Your task to perform on an android device: turn off picture-in-picture Image 0: 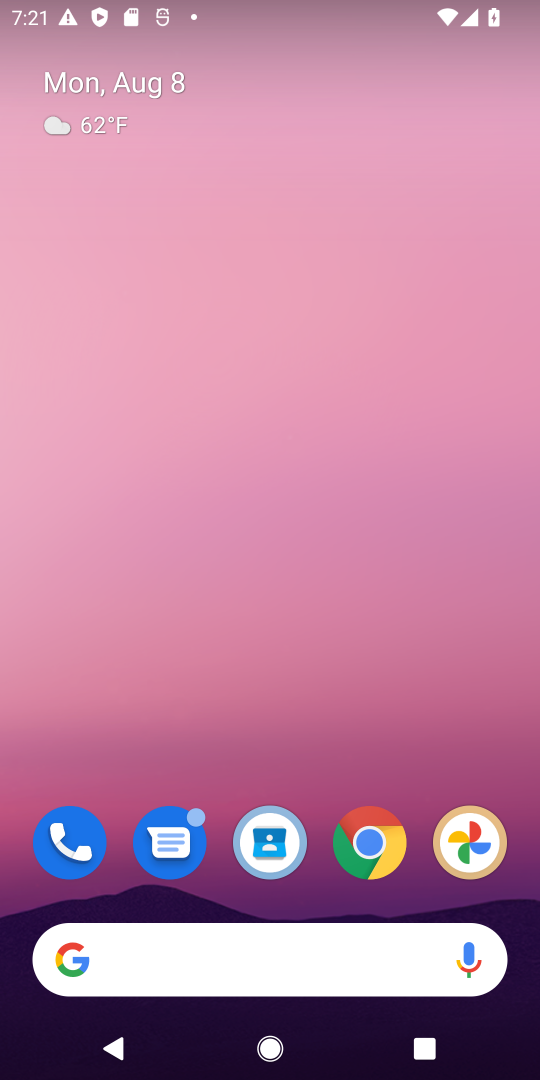
Step 0: click (366, 828)
Your task to perform on an android device: turn off picture-in-picture Image 1: 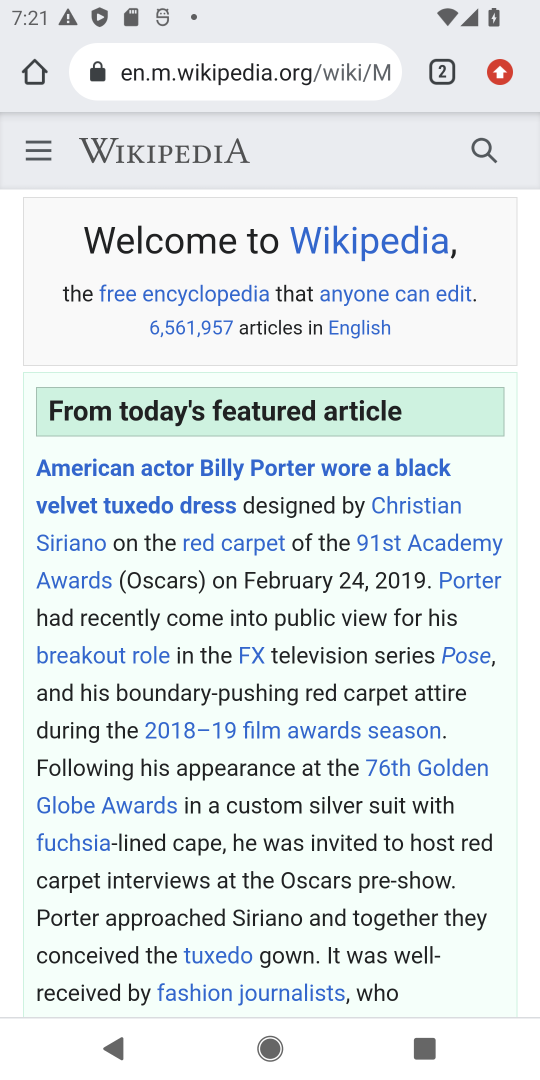
Step 1: press back button
Your task to perform on an android device: turn off picture-in-picture Image 2: 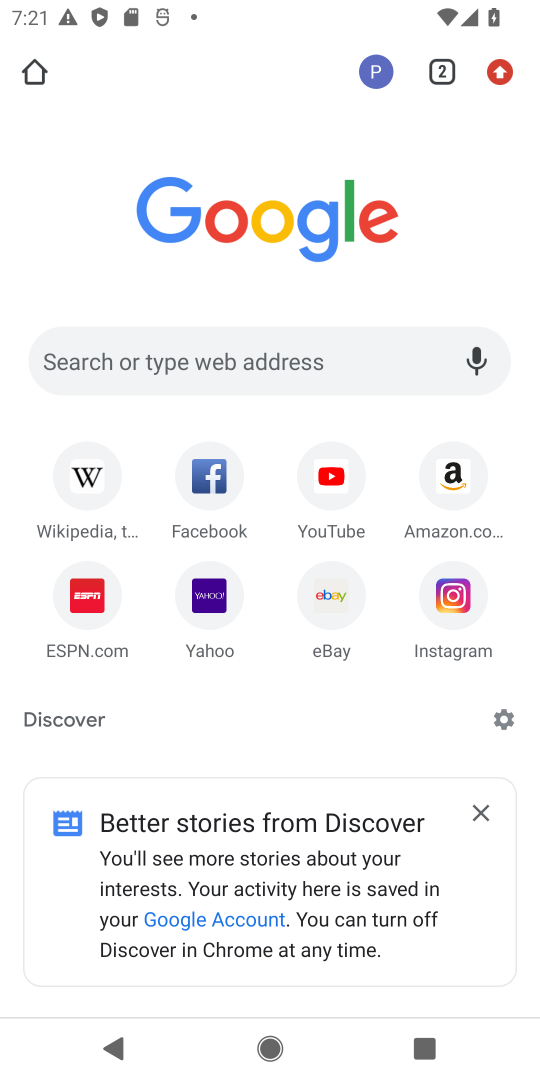
Step 2: press back button
Your task to perform on an android device: turn off picture-in-picture Image 3: 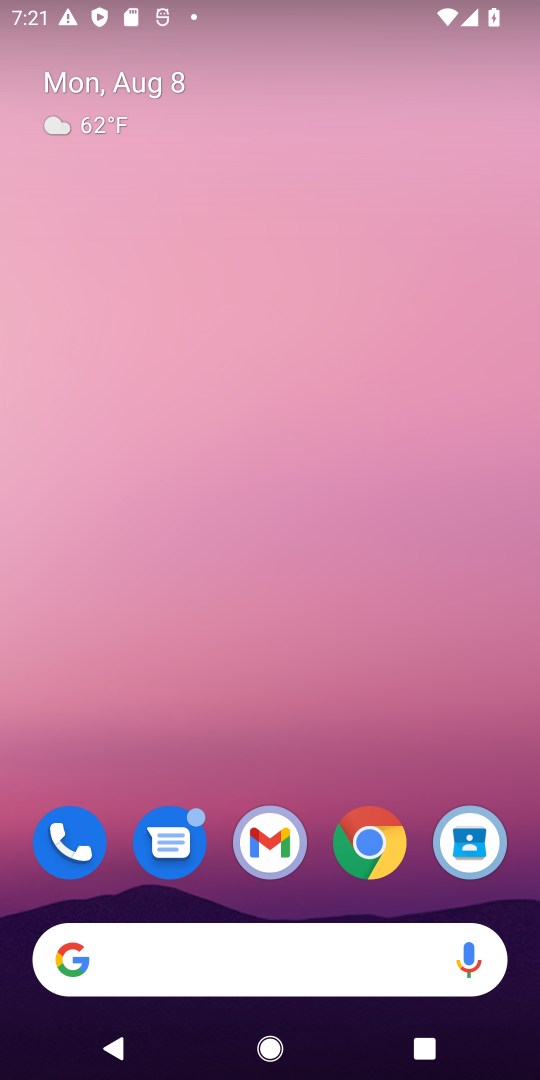
Step 3: click (381, 840)
Your task to perform on an android device: turn off picture-in-picture Image 4: 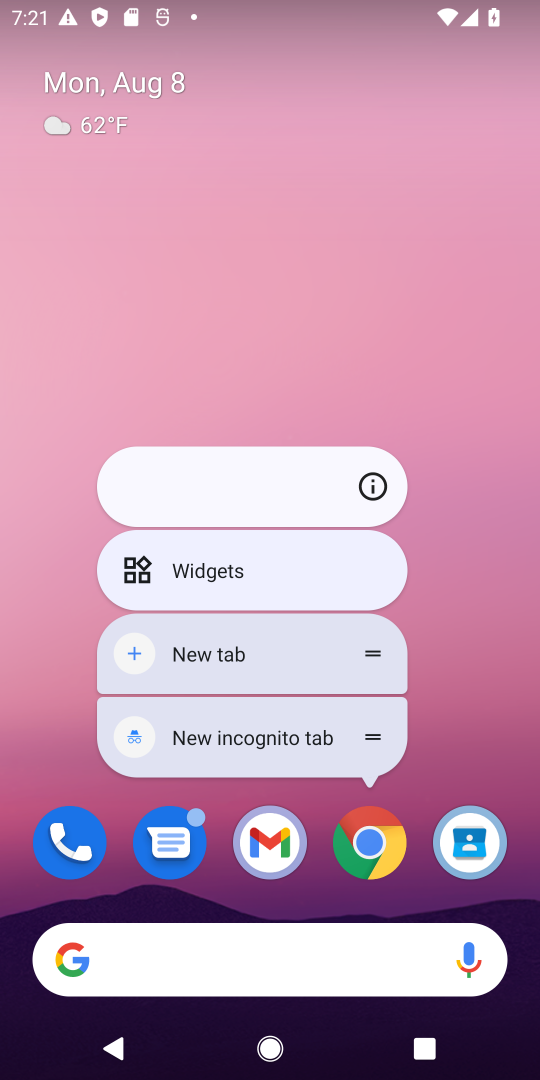
Step 4: click (371, 486)
Your task to perform on an android device: turn off picture-in-picture Image 5: 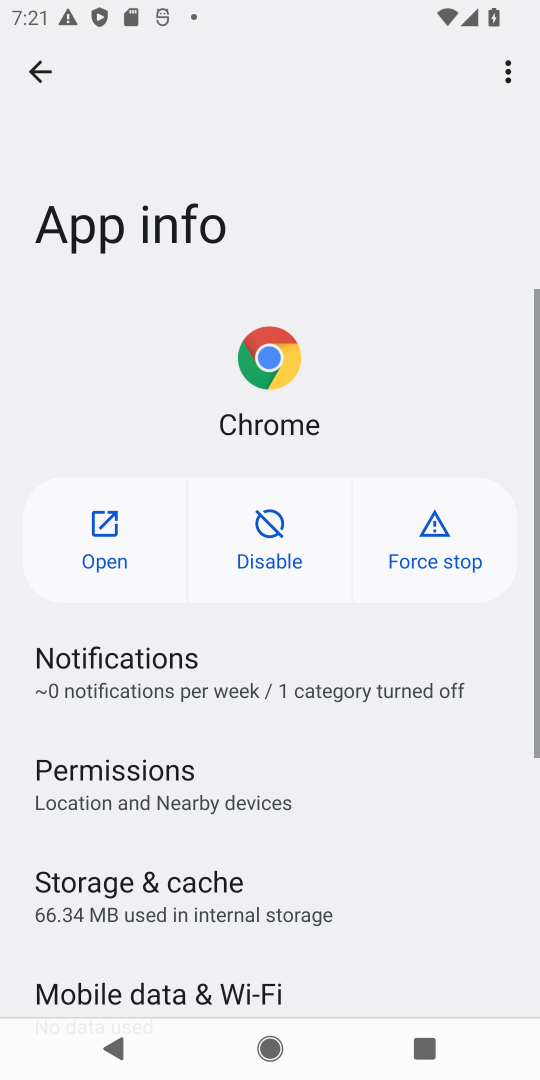
Step 5: drag from (323, 832) to (294, 3)
Your task to perform on an android device: turn off picture-in-picture Image 6: 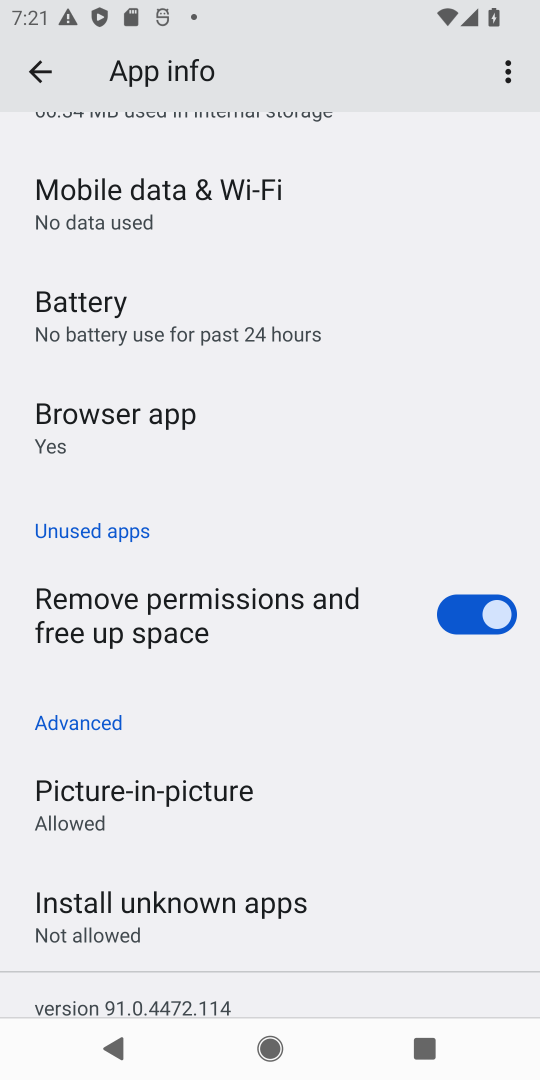
Step 6: click (235, 802)
Your task to perform on an android device: turn off picture-in-picture Image 7: 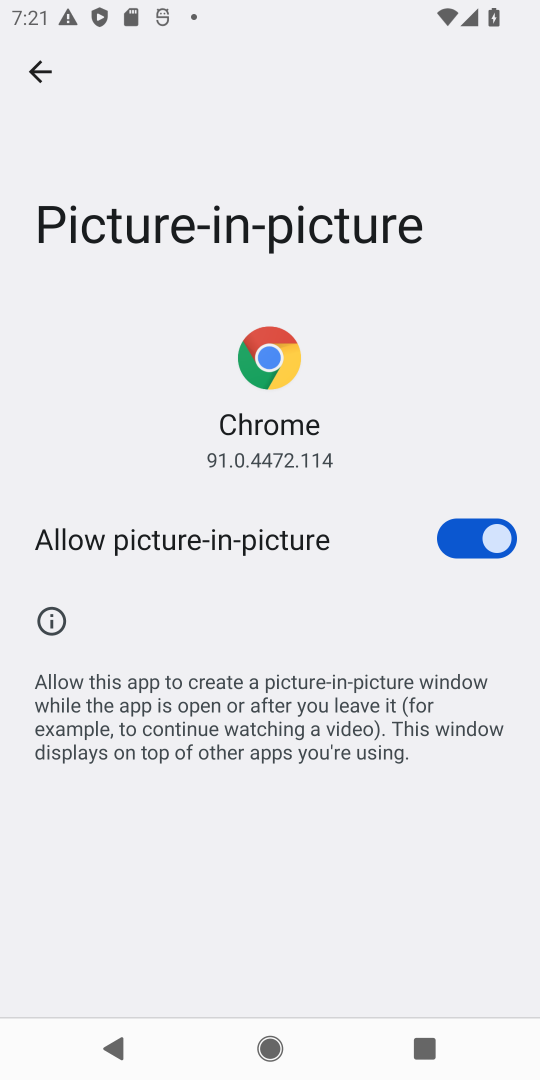
Step 7: click (478, 534)
Your task to perform on an android device: turn off picture-in-picture Image 8: 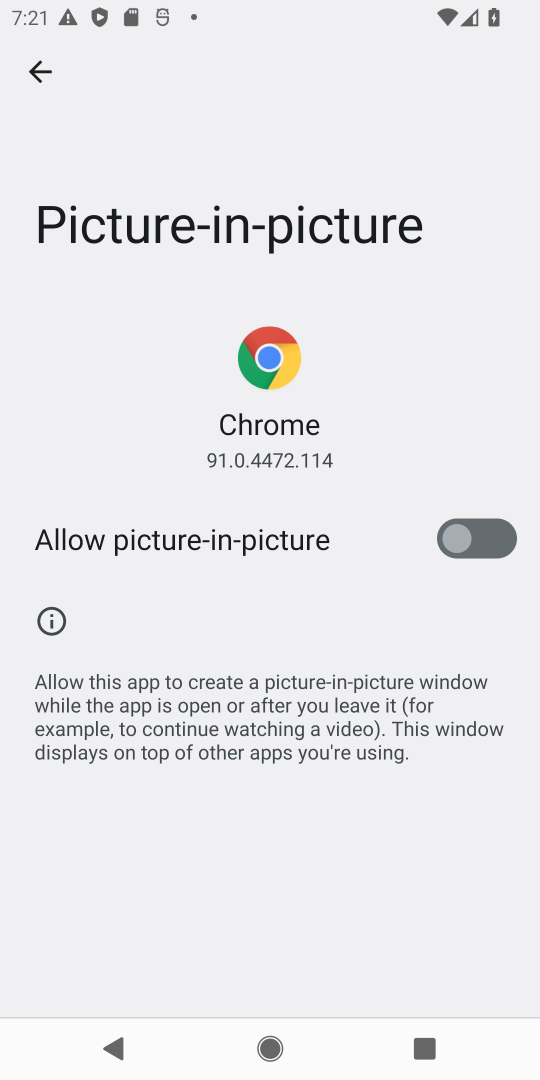
Step 8: task complete